Your task to perform on an android device: Open the Play Movies app and select the watchlist tab. Image 0: 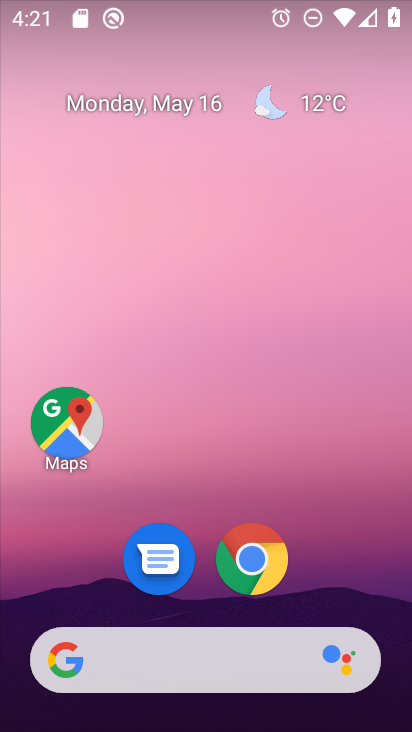
Step 0: drag from (373, 582) to (292, 117)
Your task to perform on an android device: Open the Play Movies app and select the watchlist tab. Image 1: 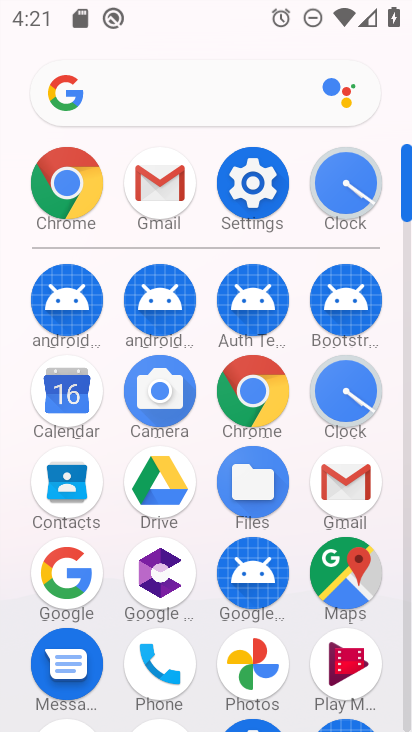
Step 1: click (403, 579)
Your task to perform on an android device: Open the Play Movies app and select the watchlist tab. Image 2: 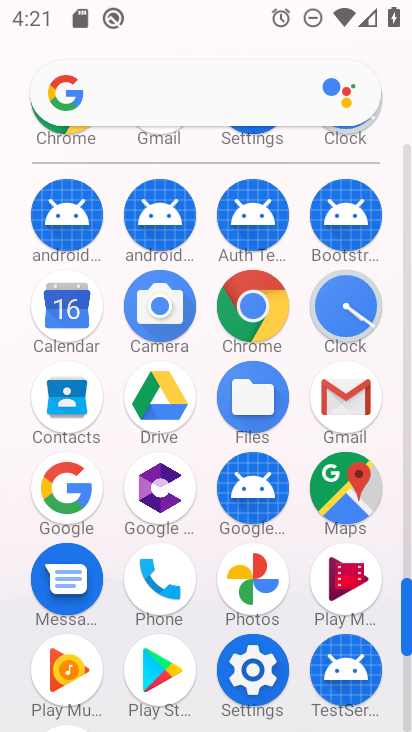
Step 2: click (170, 697)
Your task to perform on an android device: Open the Play Movies app and select the watchlist tab. Image 3: 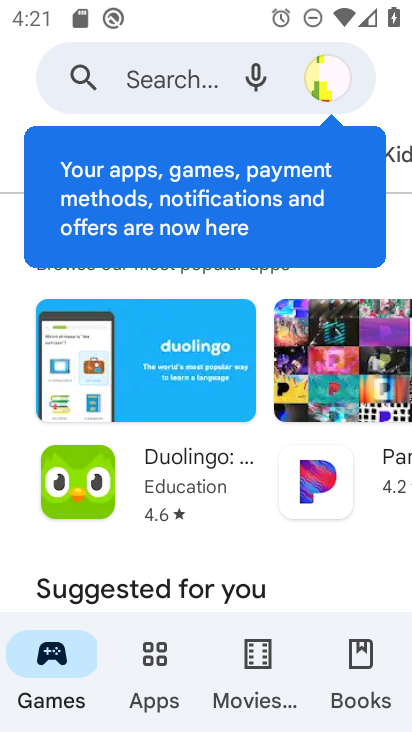
Step 3: press home button
Your task to perform on an android device: Open the Play Movies app and select the watchlist tab. Image 4: 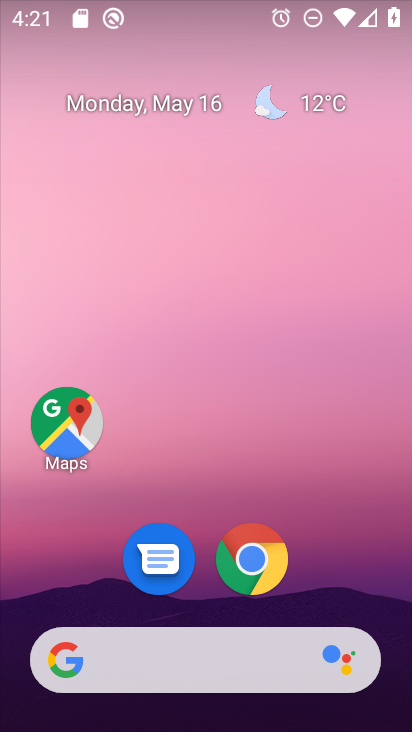
Step 4: drag from (349, 594) to (279, 91)
Your task to perform on an android device: Open the Play Movies app and select the watchlist tab. Image 5: 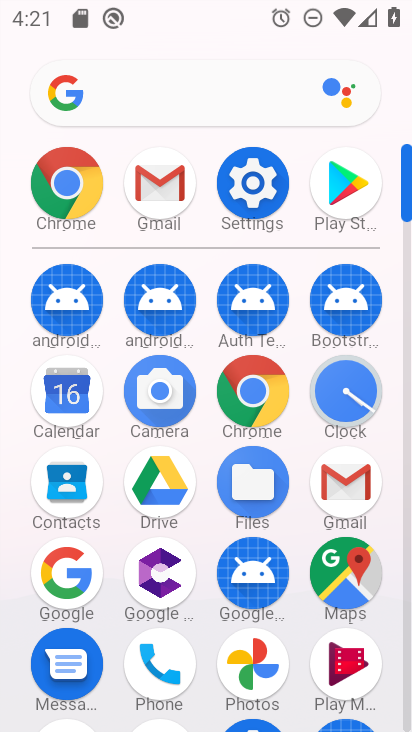
Step 5: click (354, 676)
Your task to perform on an android device: Open the Play Movies app and select the watchlist tab. Image 6: 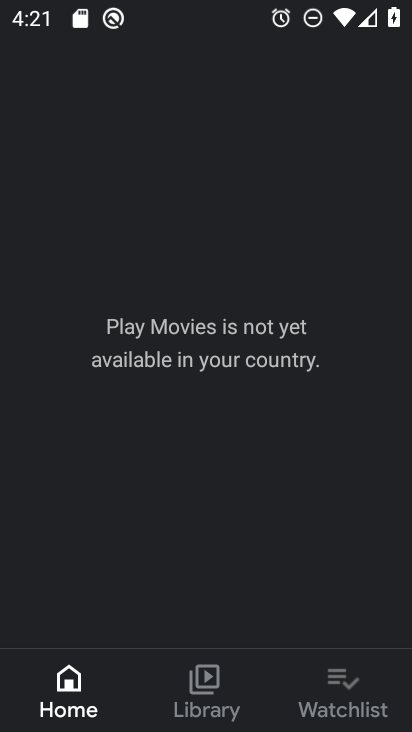
Step 6: click (339, 694)
Your task to perform on an android device: Open the Play Movies app and select the watchlist tab. Image 7: 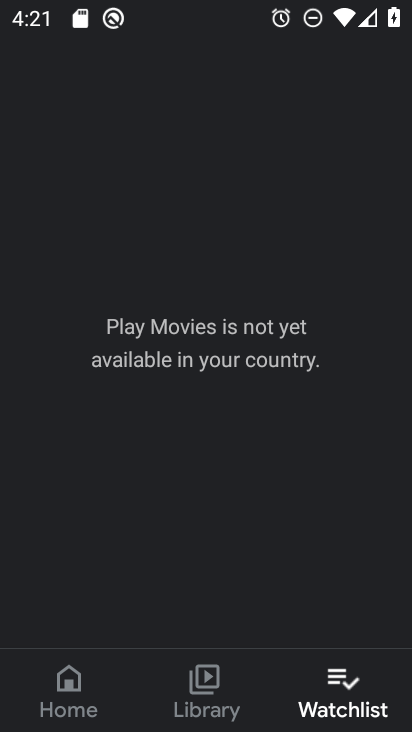
Step 7: task complete